Your task to perform on an android device: What's on my calendar today? Image 0: 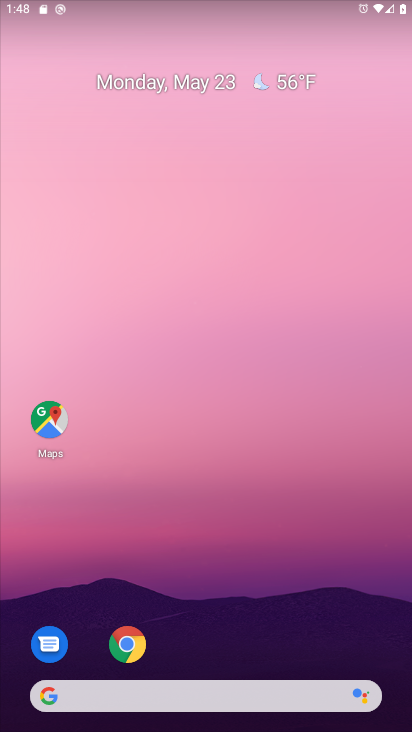
Step 0: click (191, 262)
Your task to perform on an android device: What's on my calendar today? Image 1: 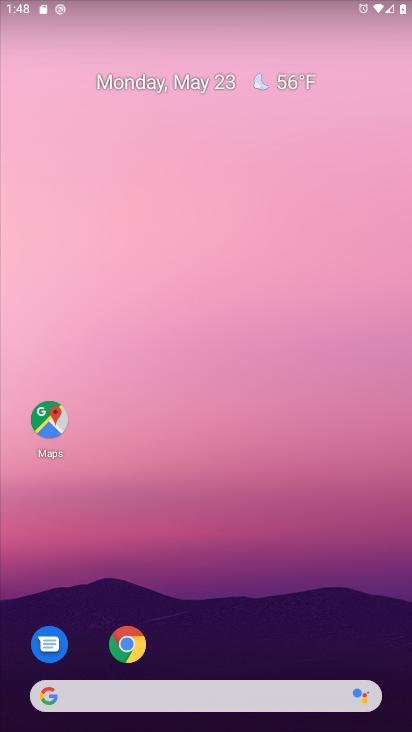
Step 1: drag from (186, 638) to (200, 205)
Your task to perform on an android device: What's on my calendar today? Image 2: 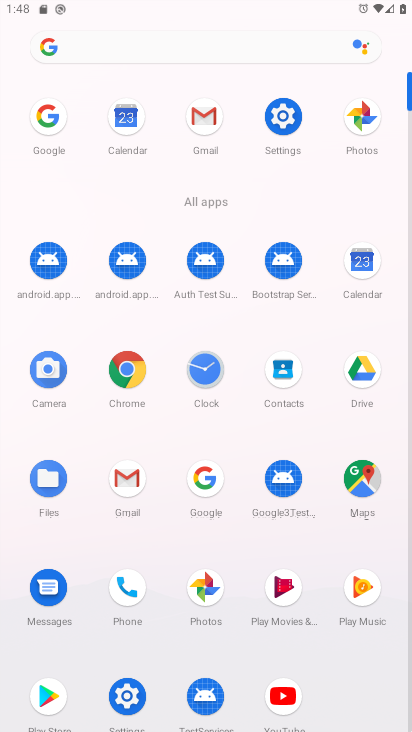
Step 2: click (359, 293)
Your task to perform on an android device: What's on my calendar today? Image 3: 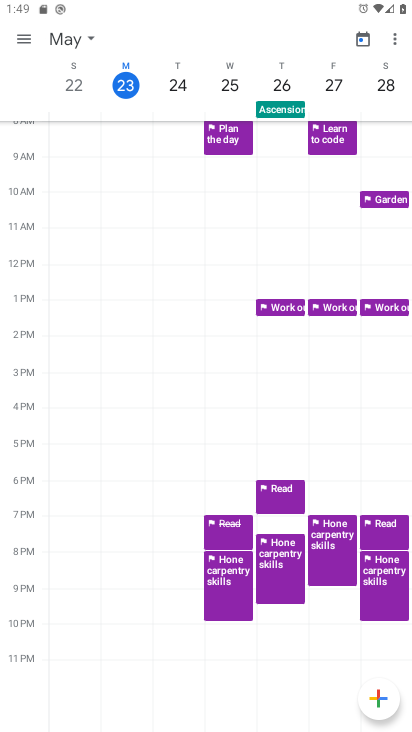
Step 3: click (27, 45)
Your task to perform on an android device: What's on my calendar today? Image 4: 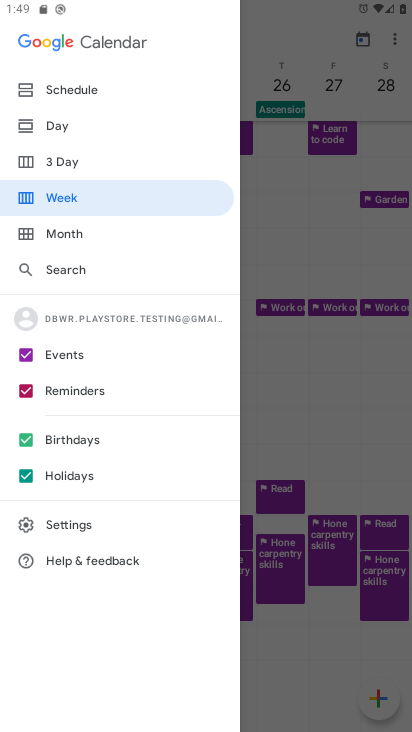
Step 4: click (90, 87)
Your task to perform on an android device: What's on my calendar today? Image 5: 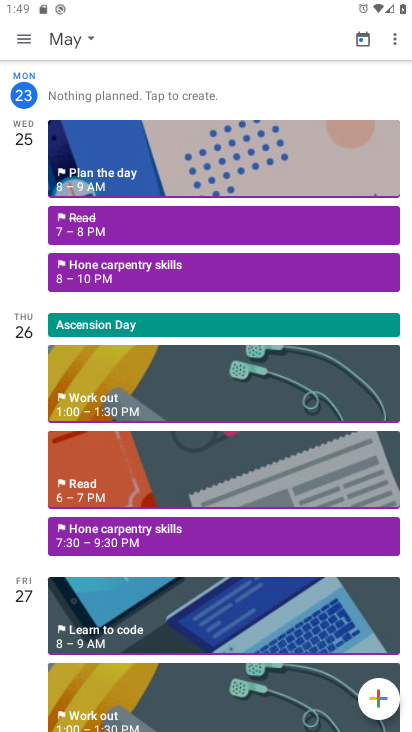
Step 5: task complete